Your task to perform on an android device: Go to Yahoo.com Image 0: 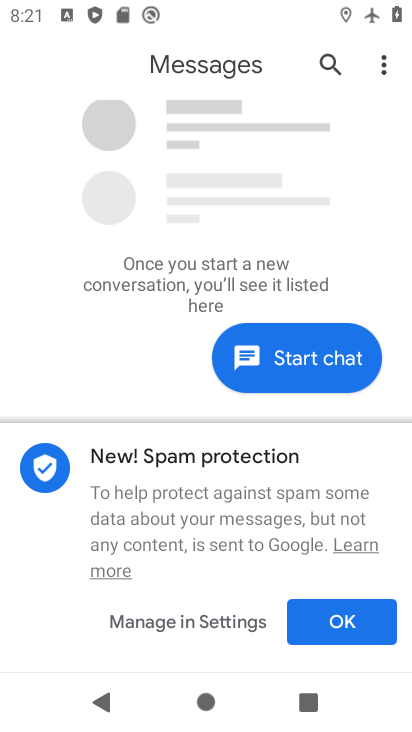
Step 0: press home button
Your task to perform on an android device: Go to Yahoo.com Image 1: 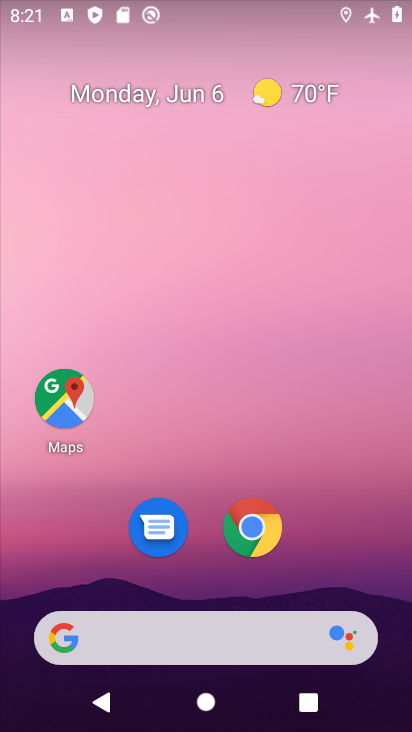
Step 1: drag from (195, 558) to (227, 70)
Your task to perform on an android device: Go to Yahoo.com Image 2: 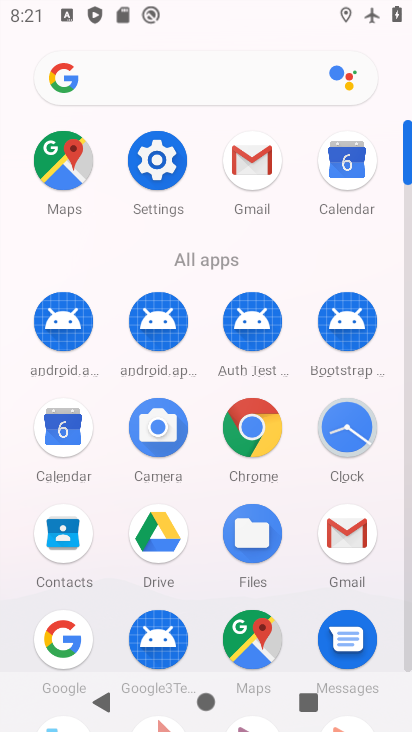
Step 2: click (270, 462)
Your task to perform on an android device: Go to Yahoo.com Image 3: 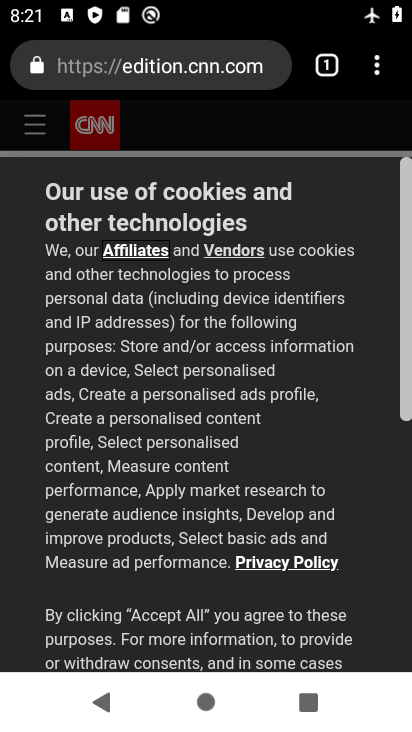
Step 3: click (232, 51)
Your task to perform on an android device: Go to Yahoo.com Image 4: 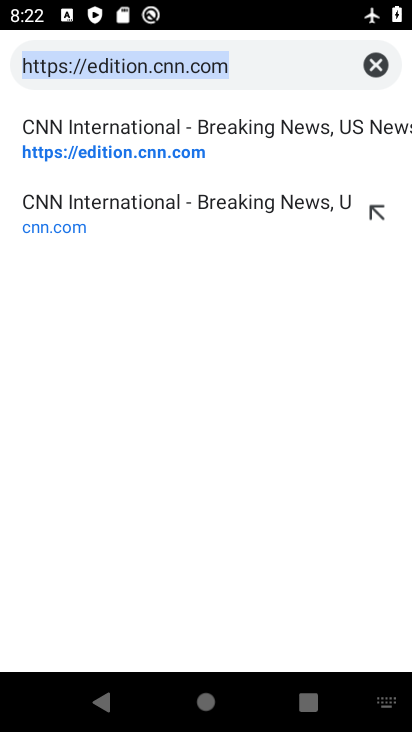
Step 4: type "yahoo"
Your task to perform on an android device: Go to Yahoo.com Image 5: 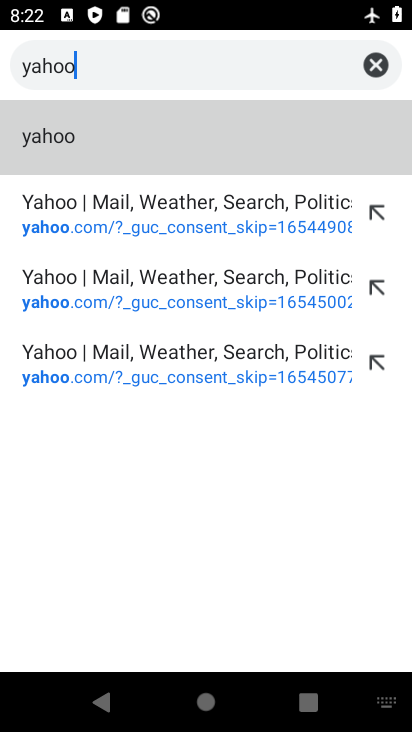
Step 5: click (162, 225)
Your task to perform on an android device: Go to Yahoo.com Image 6: 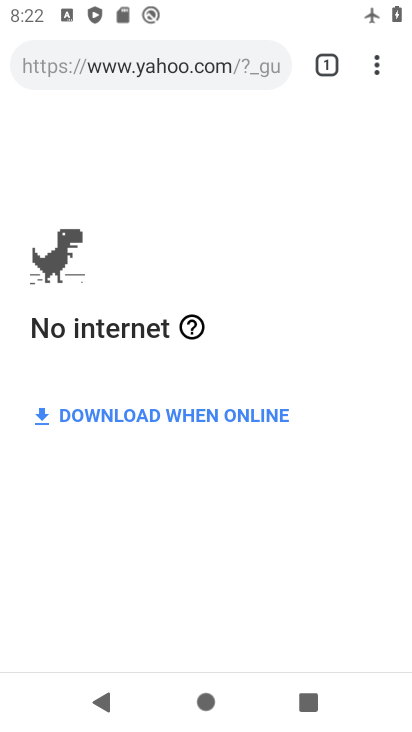
Step 6: task complete